Your task to perform on an android device: Open maps Image 0: 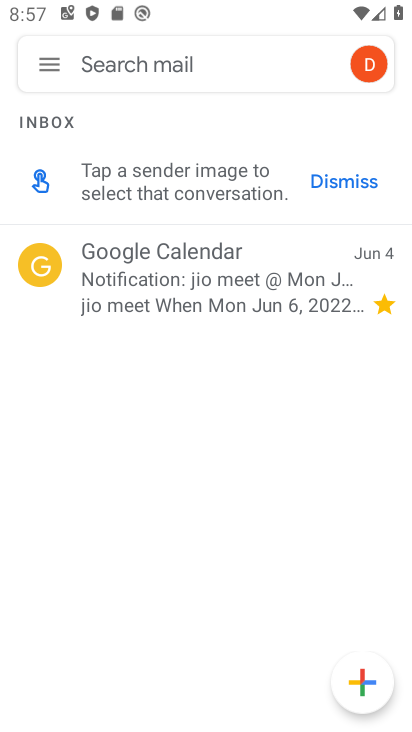
Step 0: press home button
Your task to perform on an android device: Open maps Image 1: 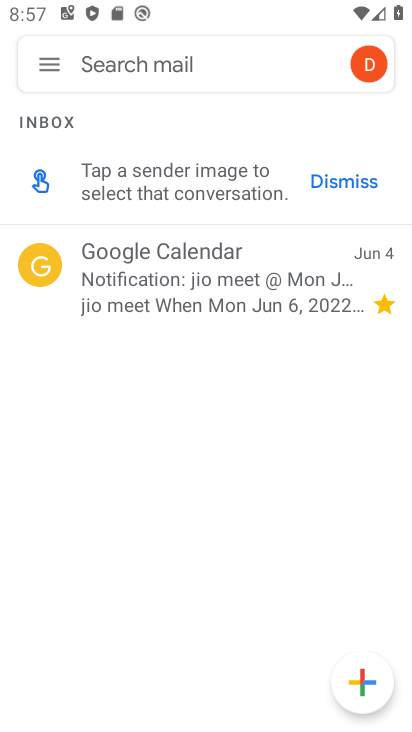
Step 1: press home button
Your task to perform on an android device: Open maps Image 2: 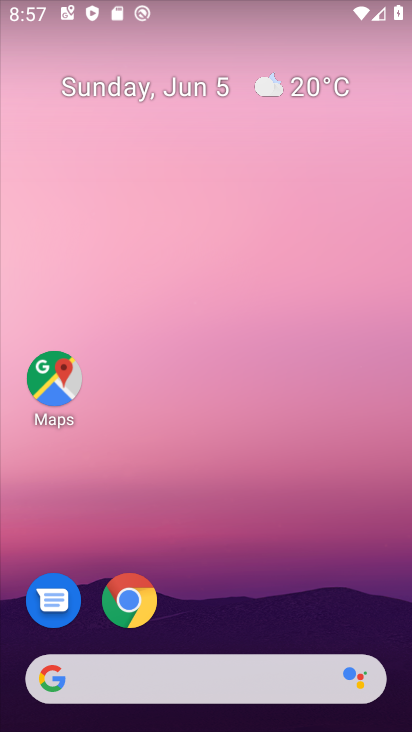
Step 2: click (59, 374)
Your task to perform on an android device: Open maps Image 3: 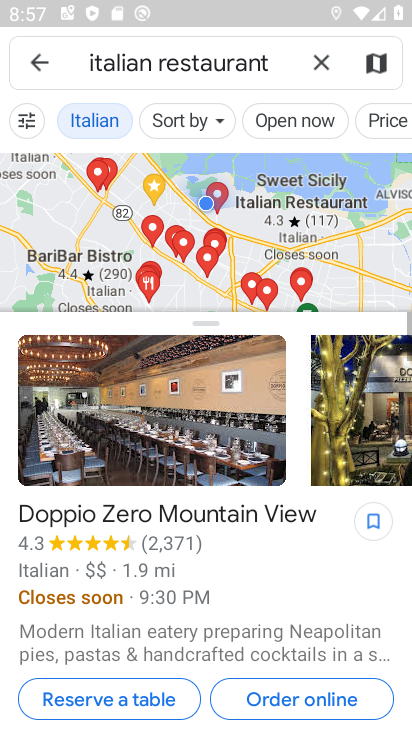
Step 3: click (320, 60)
Your task to perform on an android device: Open maps Image 4: 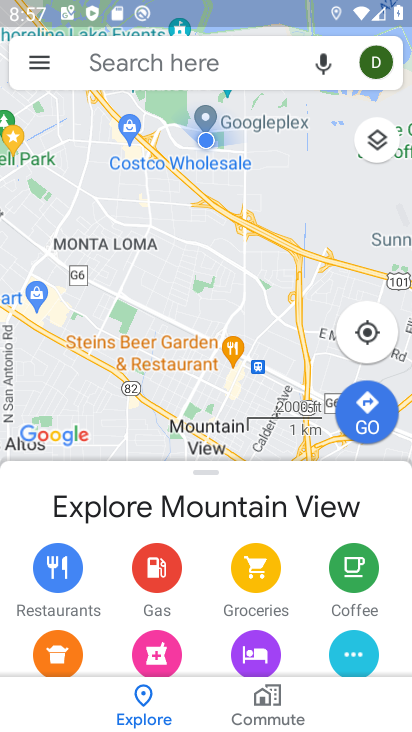
Step 4: task complete